Your task to perform on an android device: Open internet settings Image 0: 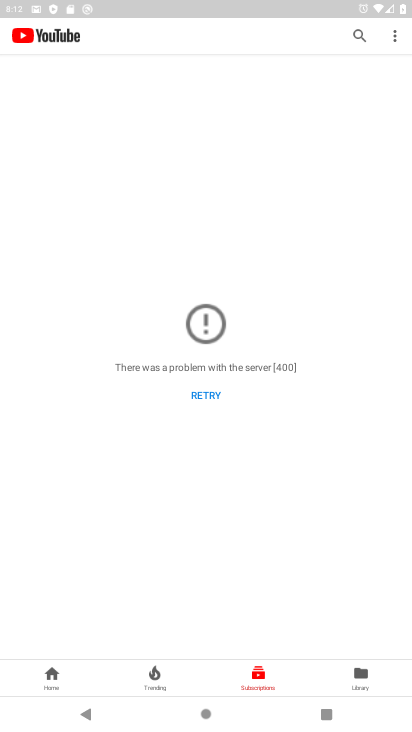
Step 0: press home button
Your task to perform on an android device: Open internet settings Image 1: 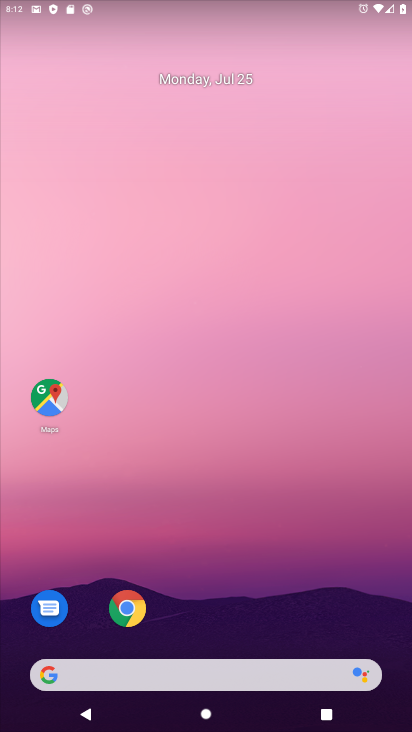
Step 1: drag from (234, 714) to (259, 38)
Your task to perform on an android device: Open internet settings Image 2: 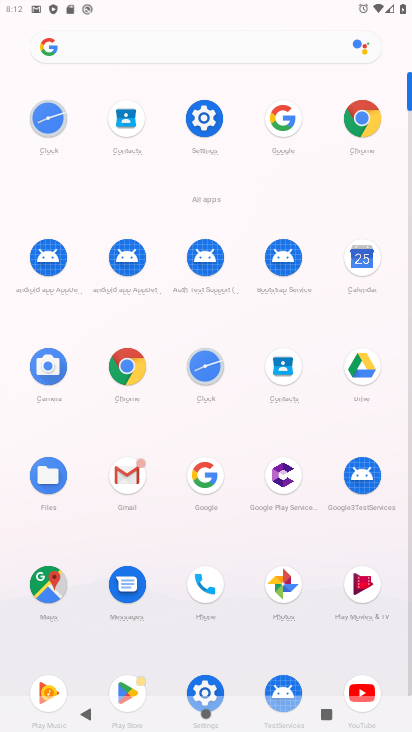
Step 2: click (214, 116)
Your task to perform on an android device: Open internet settings Image 3: 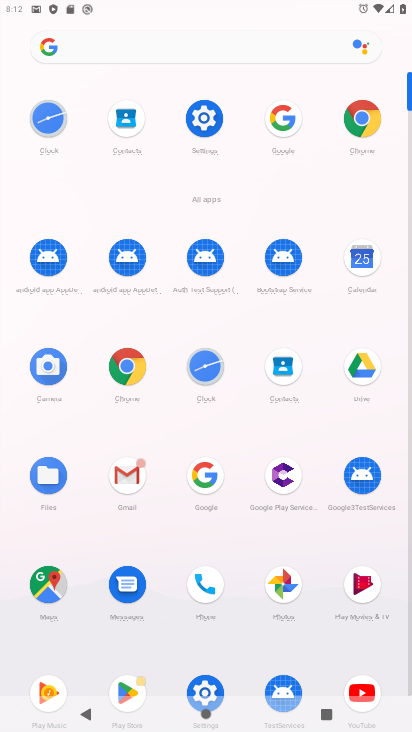
Step 3: click (214, 116)
Your task to perform on an android device: Open internet settings Image 4: 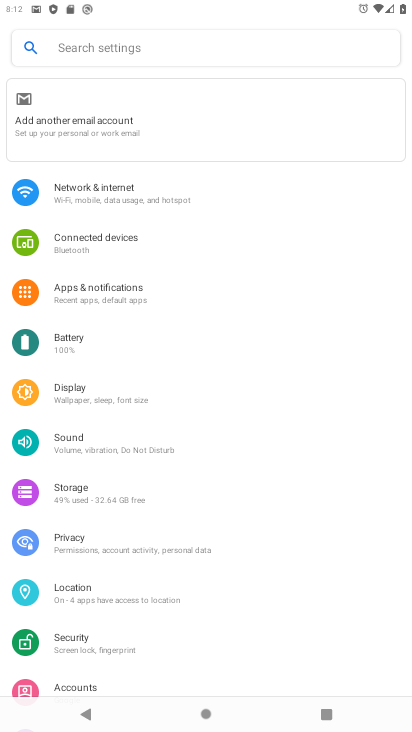
Step 4: click (166, 179)
Your task to perform on an android device: Open internet settings Image 5: 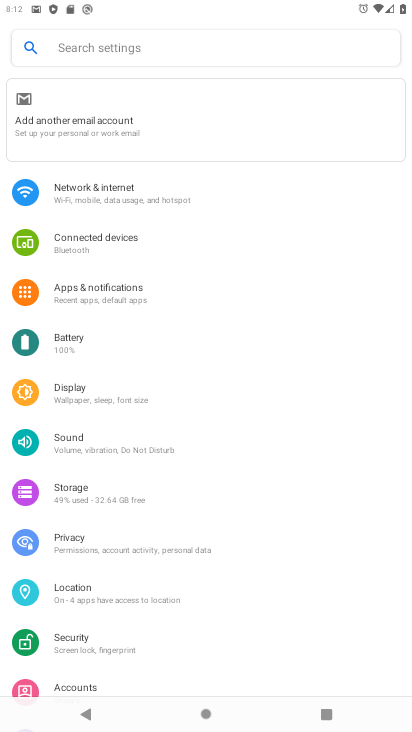
Step 5: click (166, 179)
Your task to perform on an android device: Open internet settings Image 6: 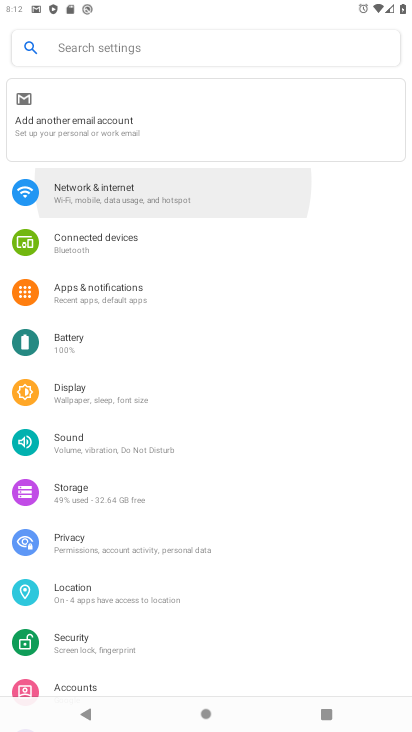
Step 6: click (166, 179)
Your task to perform on an android device: Open internet settings Image 7: 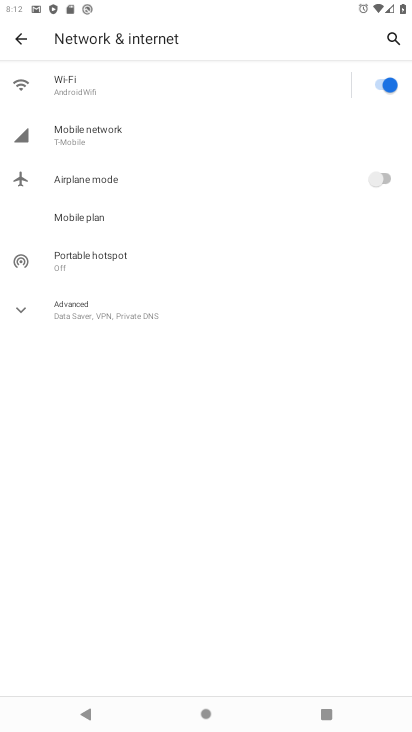
Step 7: task complete